Your task to perform on an android device: turn vacation reply on in the gmail app Image 0: 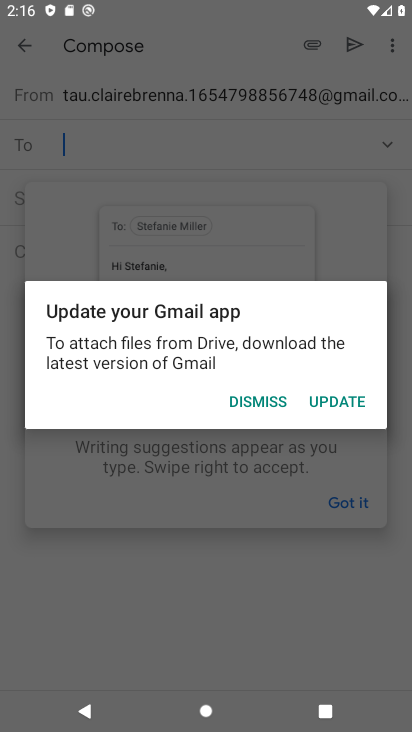
Step 0: press home button
Your task to perform on an android device: turn vacation reply on in the gmail app Image 1: 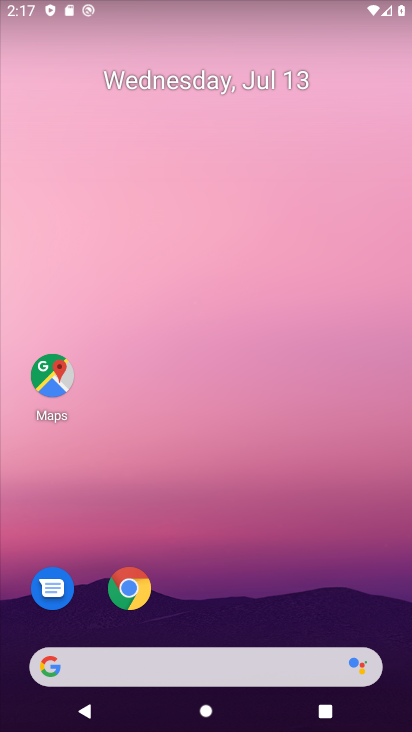
Step 1: drag from (260, 586) to (241, 73)
Your task to perform on an android device: turn vacation reply on in the gmail app Image 2: 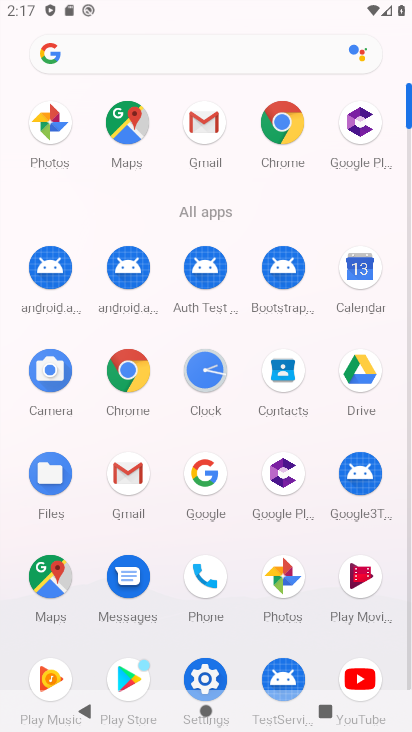
Step 2: click (199, 118)
Your task to perform on an android device: turn vacation reply on in the gmail app Image 3: 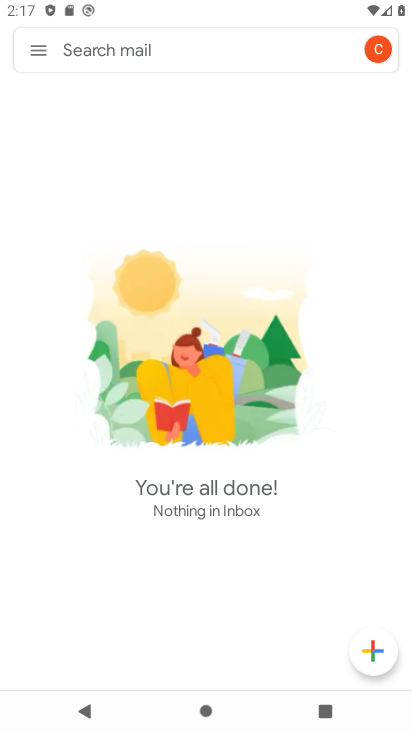
Step 3: click (39, 35)
Your task to perform on an android device: turn vacation reply on in the gmail app Image 4: 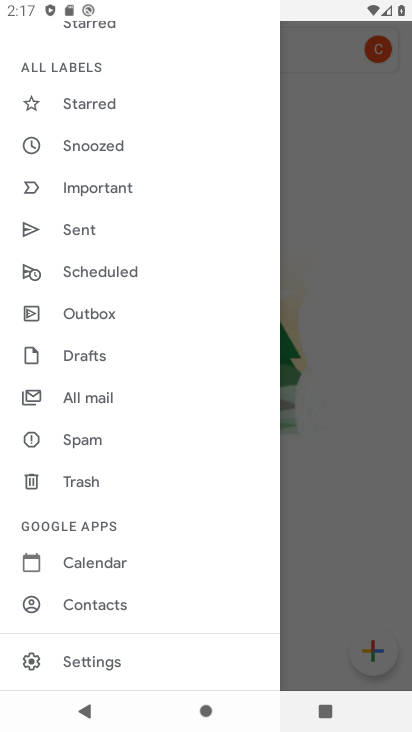
Step 4: drag from (109, 627) to (52, 236)
Your task to perform on an android device: turn vacation reply on in the gmail app Image 5: 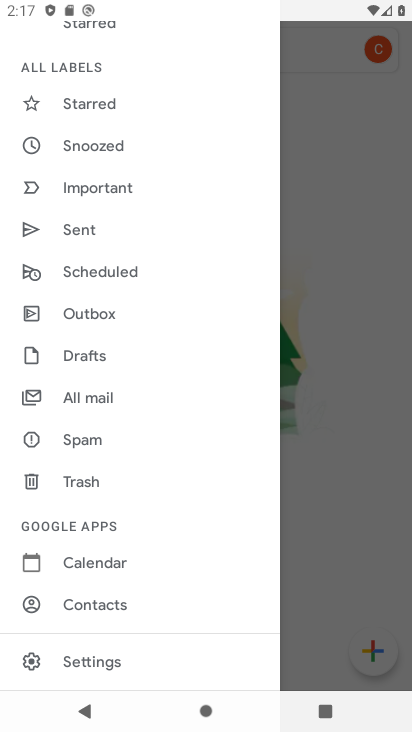
Step 5: click (102, 651)
Your task to perform on an android device: turn vacation reply on in the gmail app Image 6: 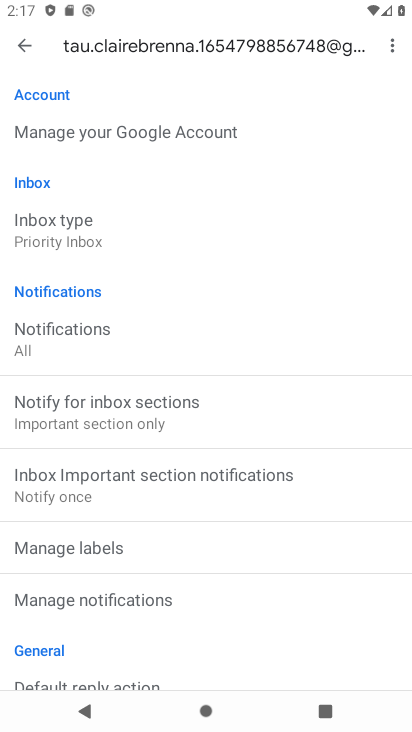
Step 6: drag from (91, 596) to (120, 288)
Your task to perform on an android device: turn vacation reply on in the gmail app Image 7: 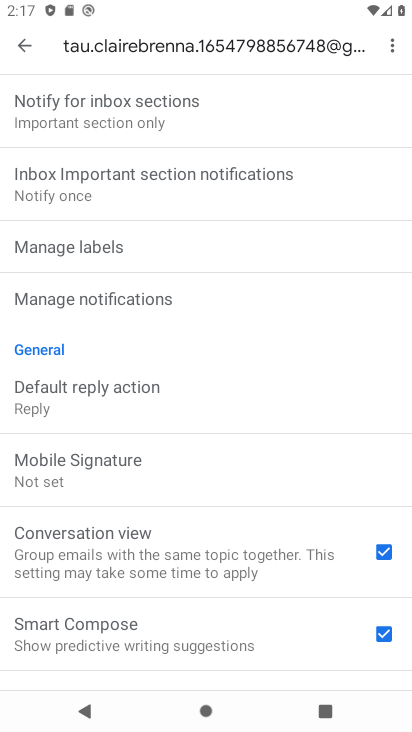
Step 7: drag from (131, 599) to (135, 359)
Your task to perform on an android device: turn vacation reply on in the gmail app Image 8: 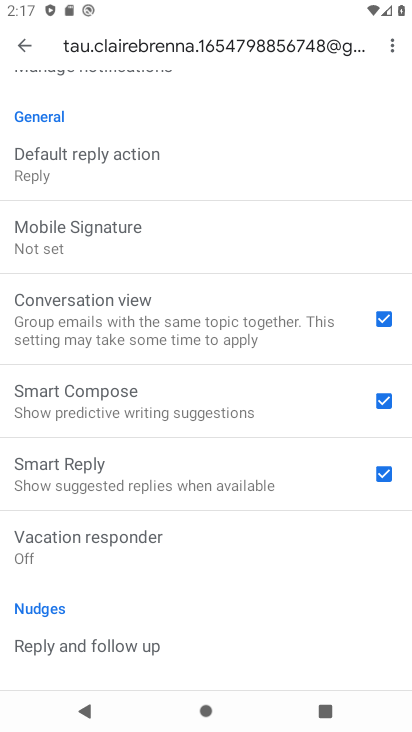
Step 8: click (74, 561)
Your task to perform on an android device: turn vacation reply on in the gmail app Image 9: 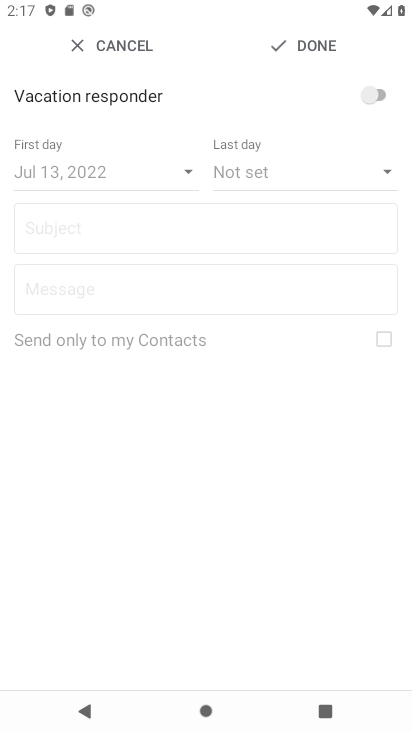
Step 9: click (378, 93)
Your task to perform on an android device: turn vacation reply on in the gmail app Image 10: 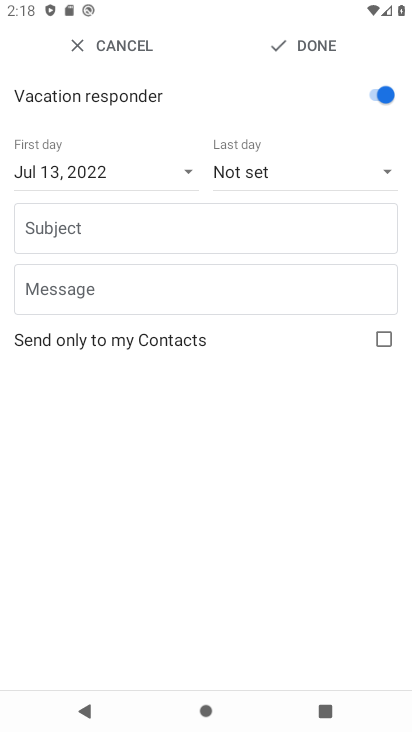
Step 10: task complete